Your task to perform on an android device: toggle priority inbox in the gmail app Image 0: 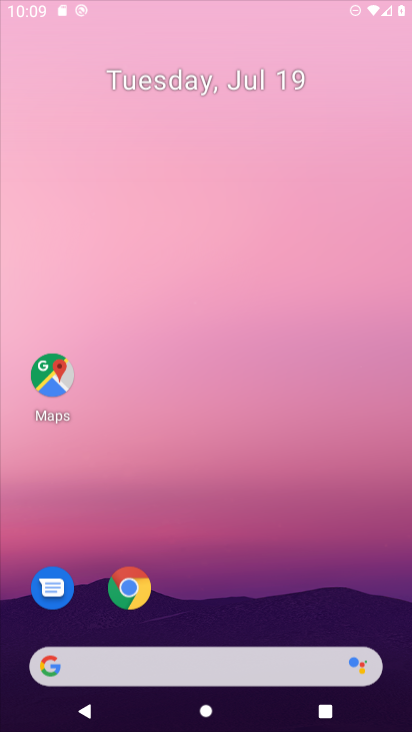
Step 0: click (216, 154)
Your task to perform on an android device: toggle priority inbox in the gmail app Image 1: 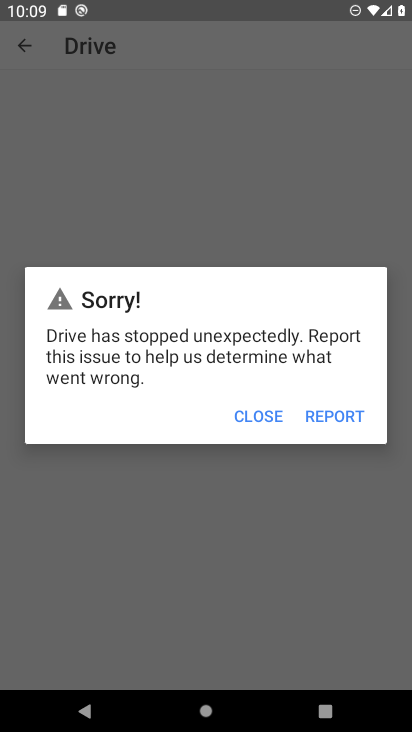
Step 1: click (262, 408)
Your task to perform on an android device: toggle priority inbox in the gmail app Image 2: 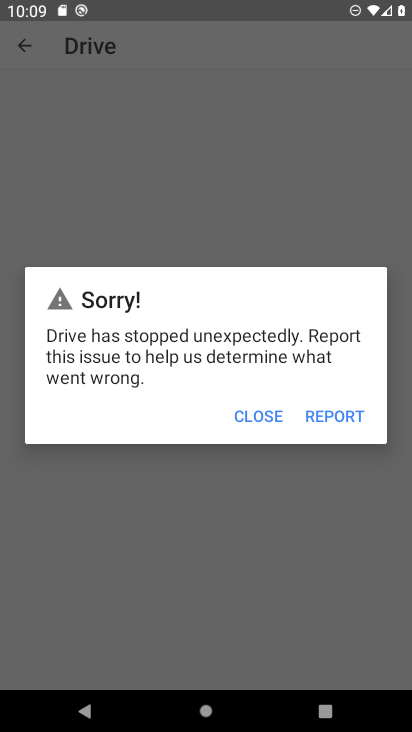
Step 2: click (262, 408)
Your task to perform on an android device: toggle priority inbox in the gmail app Image 3: 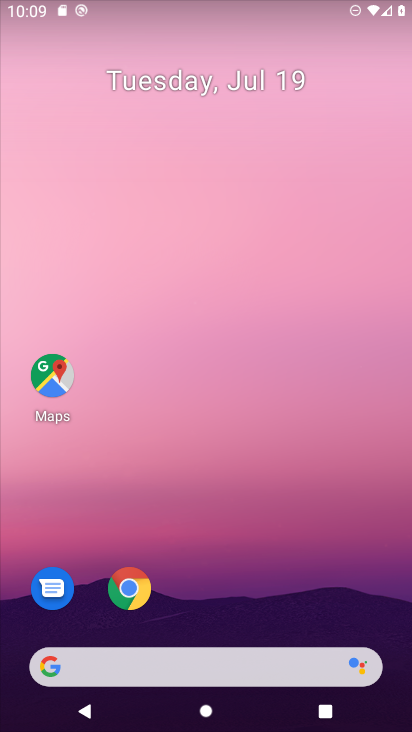
Step 3: press back button
Your task to perform on an android device: toggle priority inbox in the gmail app Image 4: 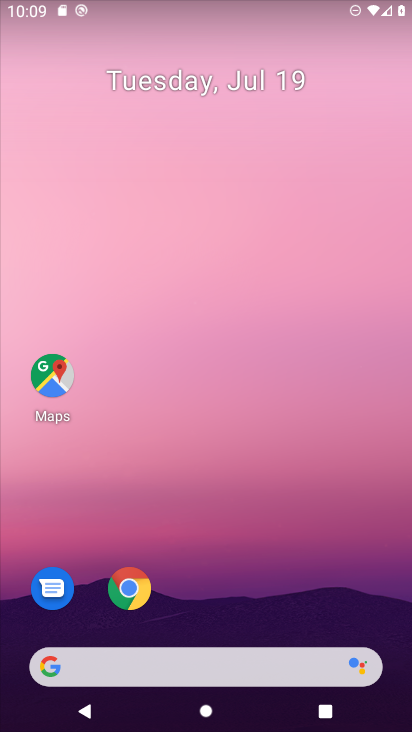
Step 4: drag from (272, 632) to (212, 40)
Your task to perform on an android device: toggle priority inbox in the gmail app Image 5: 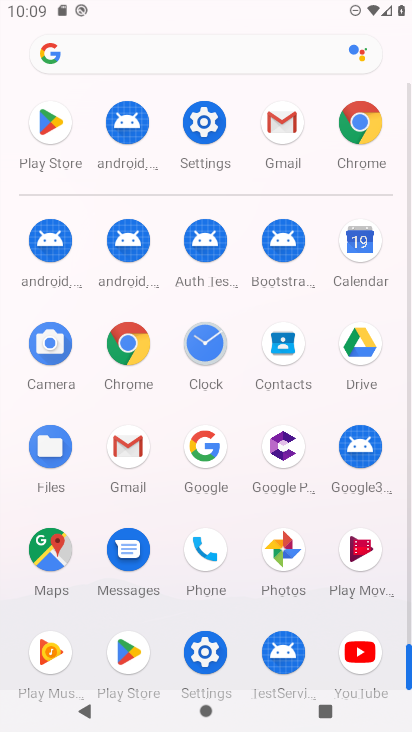
Step 5: click (138, 458)
Your task to perform on an android device: toggle priority inbox in the gmail app Image 6: 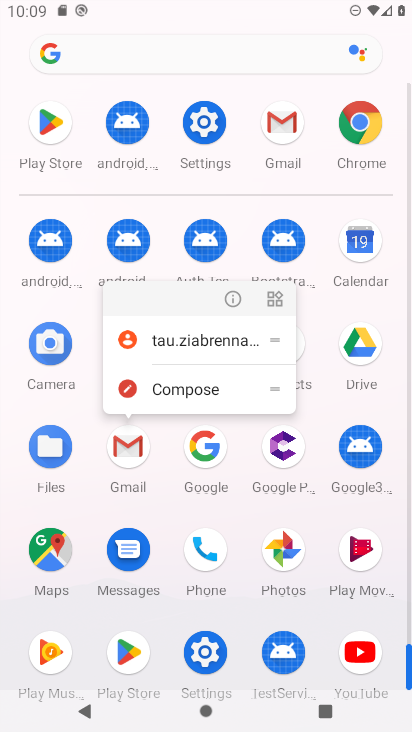
Step 6: click (141, 435)
Your task to perform on an android device: toggle priority inbox in the gmail app Image 7: 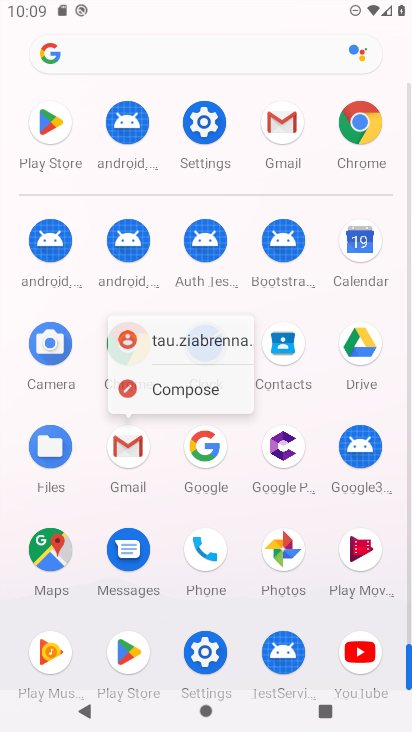
Step 7: click (135, 442)
Your task to perform on an android device: toggle priority inbox in the gmail app Image 8: 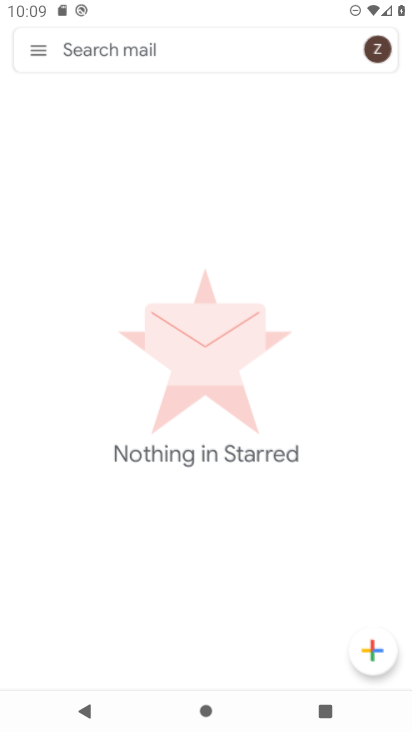
Step 8: click (135, 449)
Your task to perform on an android device: toggle priority inbox in the gmail app Image 9: 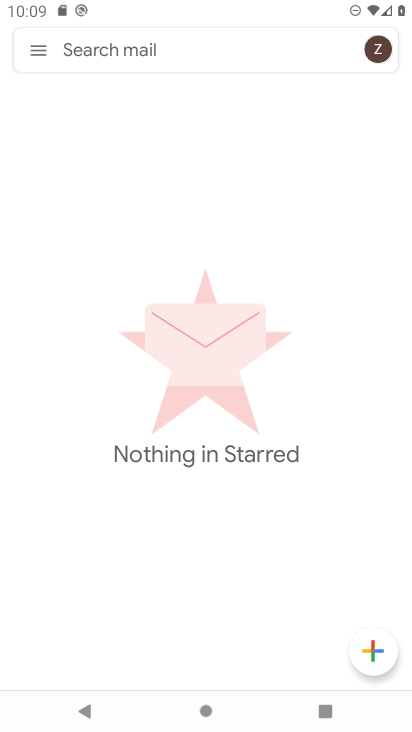
Step 9: click (31, 61)
Your task to perform on an android device: toggle priority inbox in the gmail app Image 10: 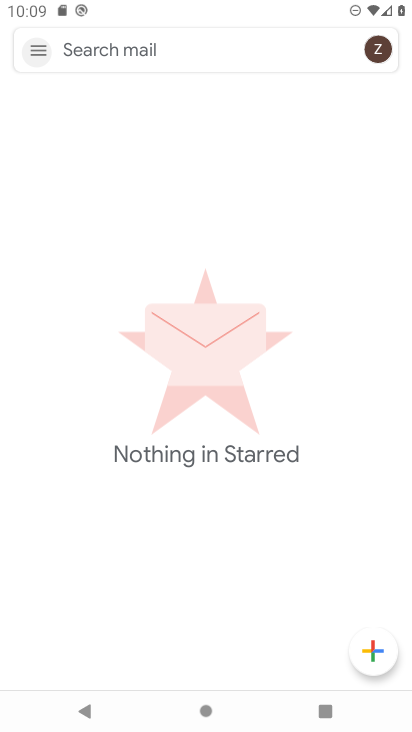
Step 10: click (31, 61)
Your task to perform on an android device: toggle priority inbox in the gmail app Image 11: 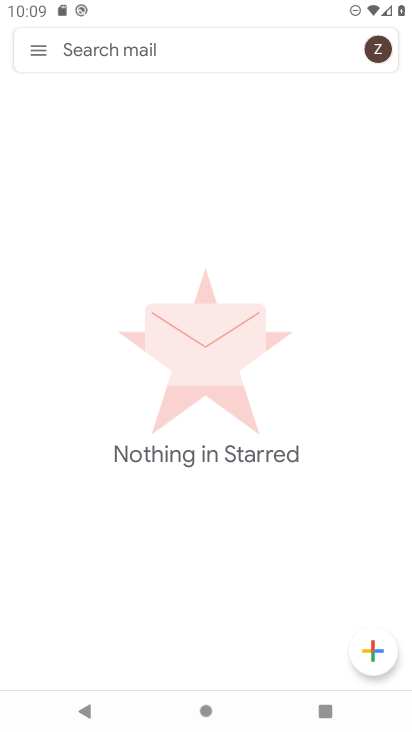
Step 11: click (36, 38)
Your task to perform on an android device: toggle priority inbox in the gmail app Image 12: 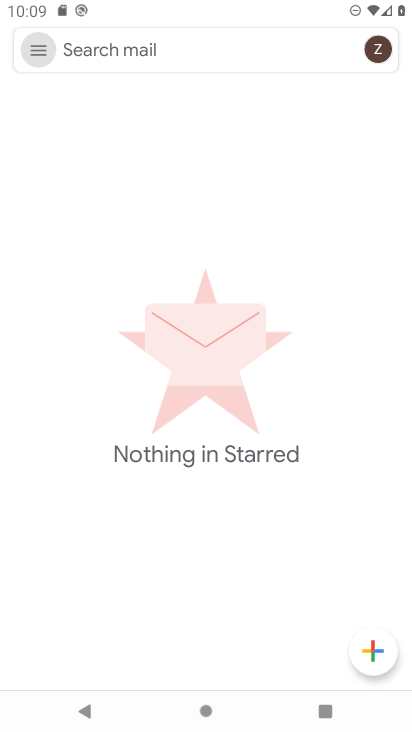
Step 12: click (36, 40)
Your task to perform on an android device: toggle priority inbox in the gmail app Image 13: 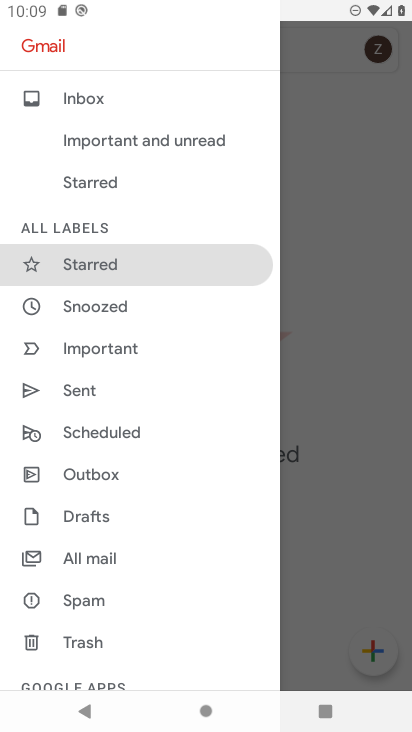
Step 13: drag from (88, 557) to (126, 56)
Your task to perform on an android device: toggle priority inbox in the gmail app Image 14: 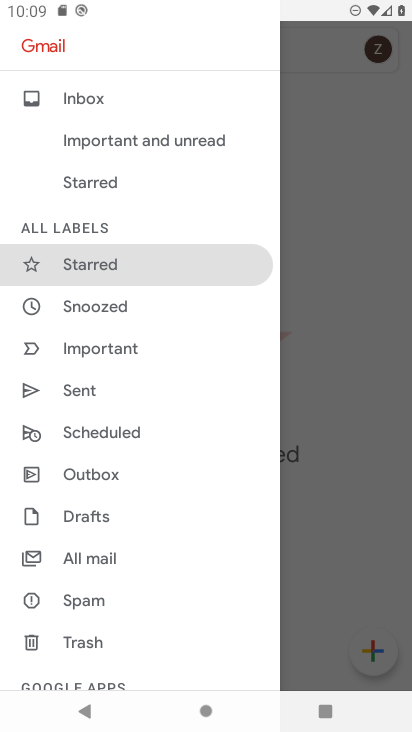
Step 14: drag from (109, 441) to (88, 210)
Your task to perform on an android device: toggle priority inbox in the gmail app Image 15: 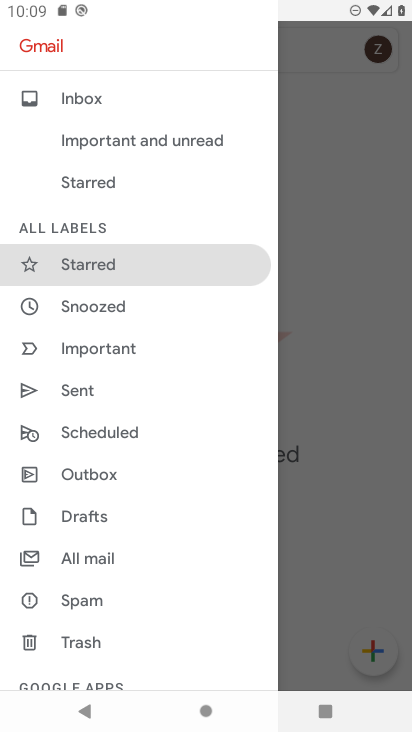
Step 15: drag from (68, 472) to (75, 189)
Your task to perform on an android device: toggle priority inbox in the gmail app Image 16: 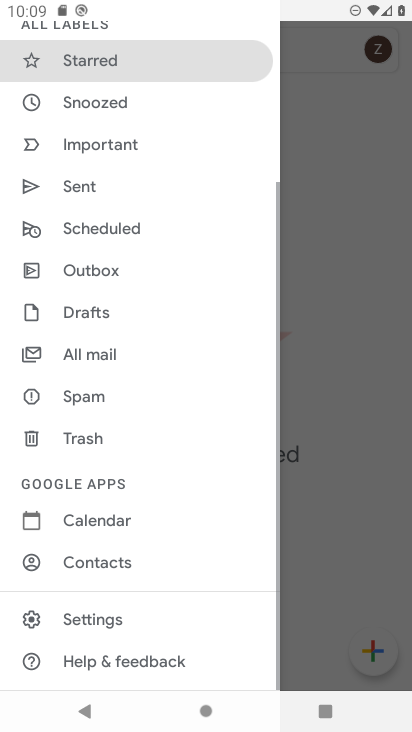
Step 16: drag from (59, 389) to (60, 273)
Your task to perform on an android device: toggle priority inbox in the gmail app Image 17: 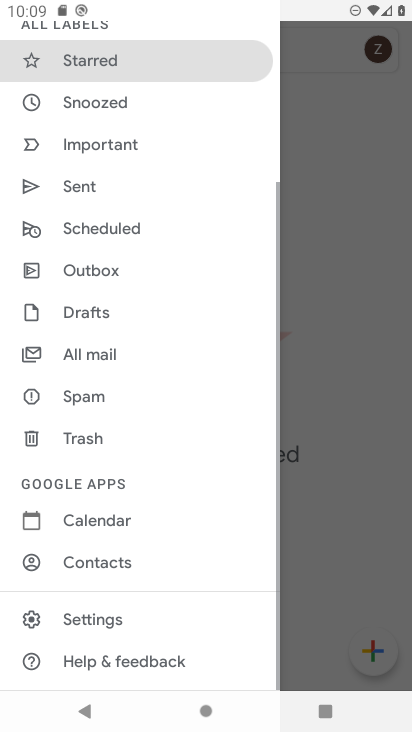
Step 17: click (88, 616)
Your task to perform on an android device: toggle priority inbox in the gmail app Image 18: 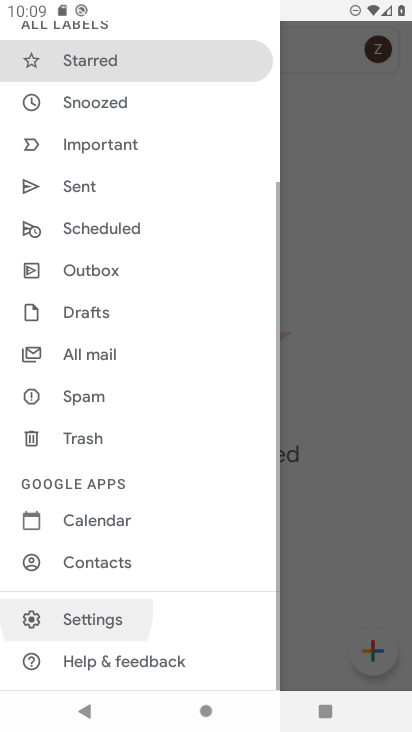
Step 18: click (86, 614)
Your task to perform on an android device: toggle priority inbox in the gmail app Image 19: 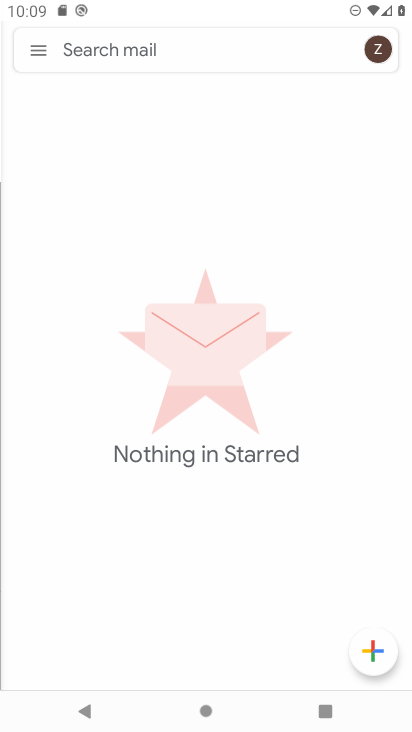
Step 19: click (84, 614)
Your task to perform on an android device: toggle priority inbox in the gmail app Image 20: 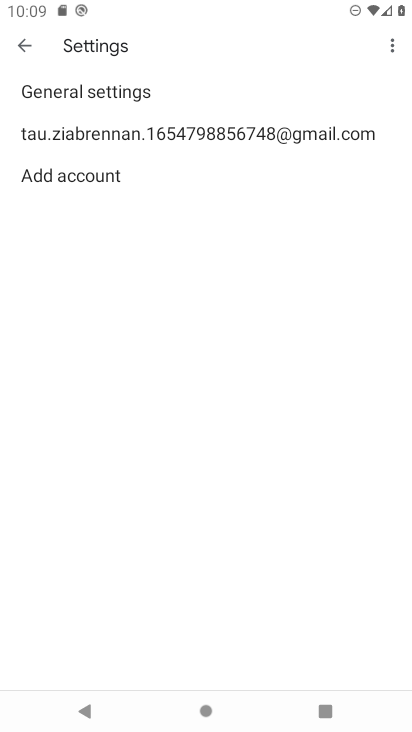
Step 20: click (113, 139)
Your task to perform on an android device: toggle priority inbox in the gmail app Image 21: 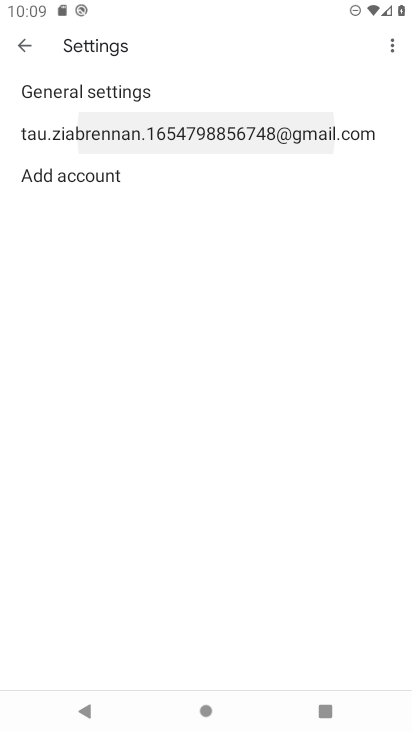
Step 21: click (113, 140)
Your task to perform on an android device: toggle priority inbox in the gmail app Image 22: 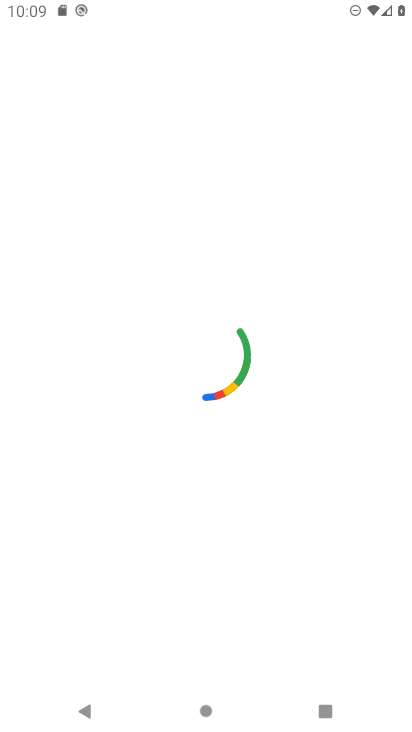
Step 22: task complete